Your task to perform on an android device: Open notification settings Image 0: 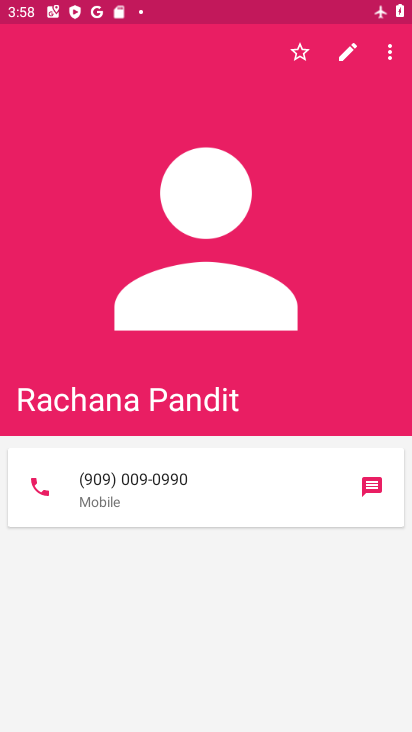
Step 0: press home button
Your task to perform on an android device: Open notification settings Image 1: 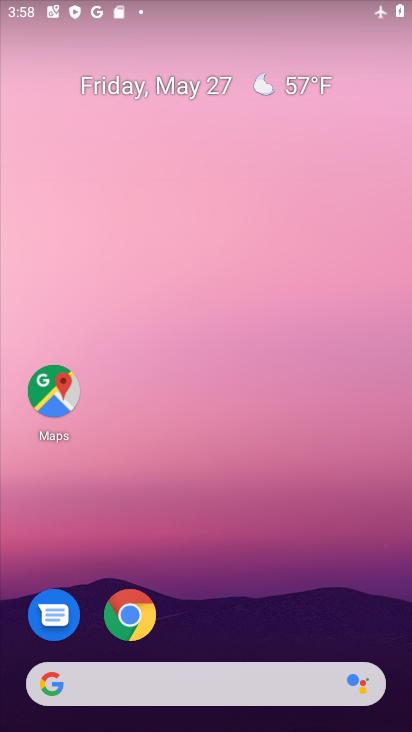
Step 1: drag from (193, 634) to (265, 78)
Your task to perform on an android device: Open notification settings Image 2: 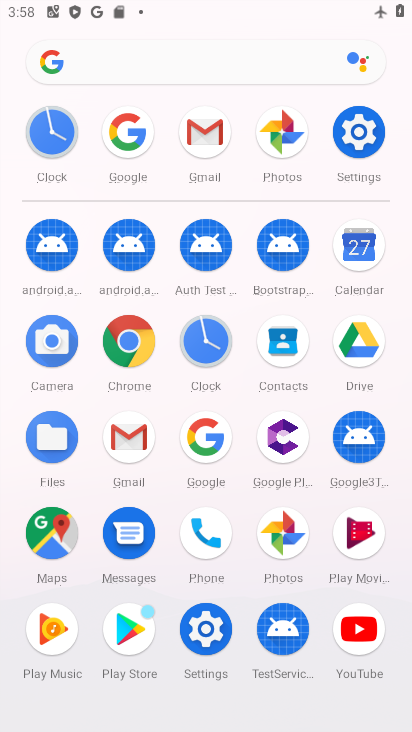
Step 2: click (355, 140)
Your task to perform on an android device: Open notification settings Image 3: 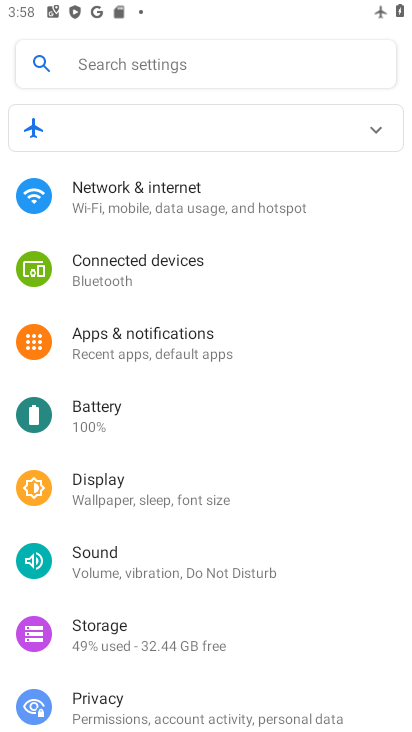
Step 3: click (131, 341)
Your task to perform on an android device: Open notification settings Image 4: 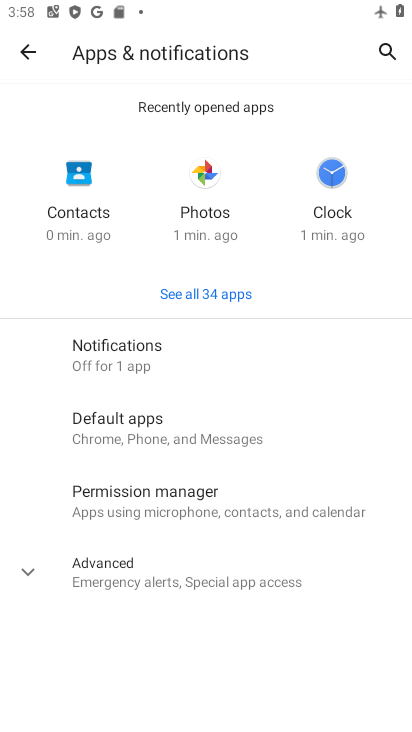
Step 4: click (120, 354)
Your task to perform on an android device: Open notification settings Image 5: 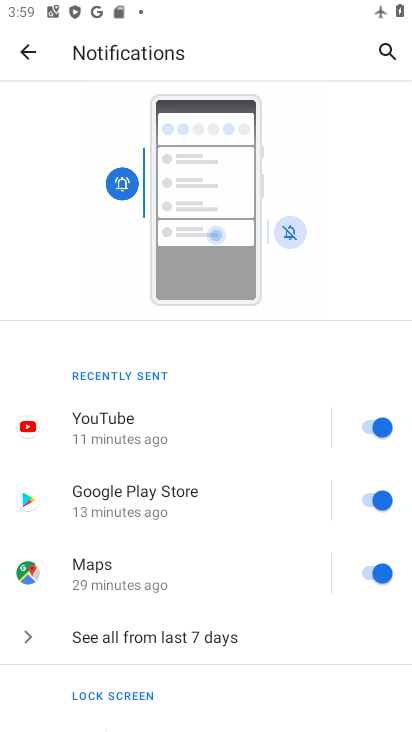
Step 5: task complete